Your task to perform on an android device: Search for sushi restaurants on Maps Image 0: 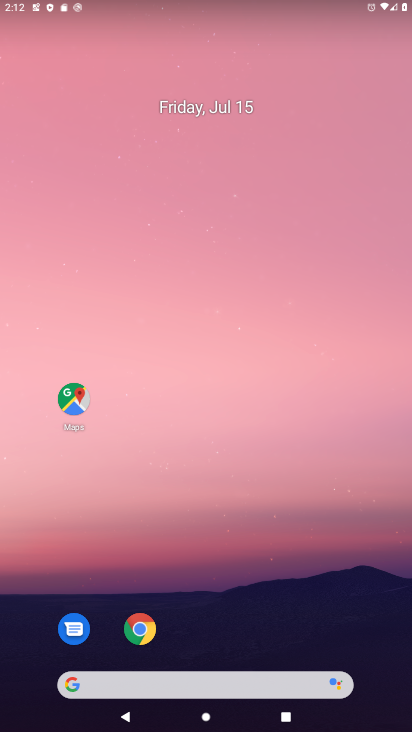
Step 0: drag from (242, 626) to (181, 106)
Your task to perform on an android device: Search for sushi restaurants on Maps Image 1: 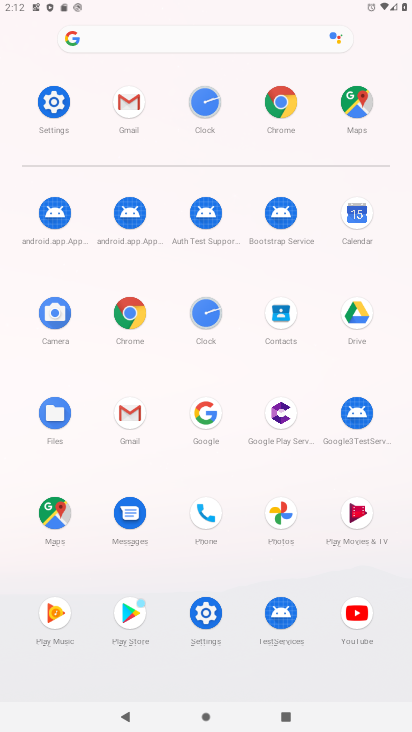
Step 1: click (352, 97)
Your task to perform on an android device: Search for sushi restaurants on Maps Image 2: 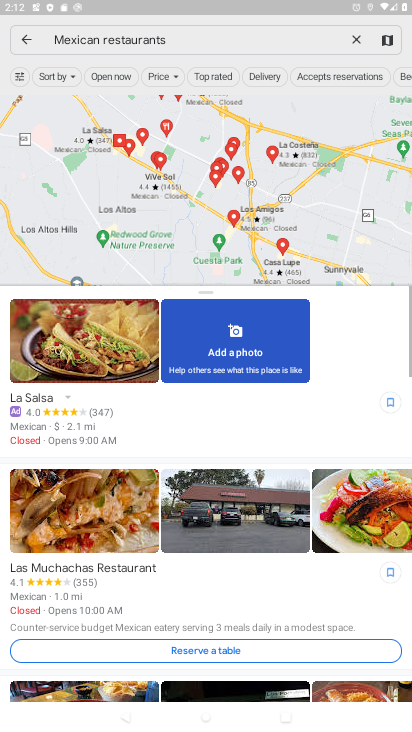
Step 2: click (207, 44)
Your task to perform on an android device: Search for sushi restaurants on Maps Image 3: 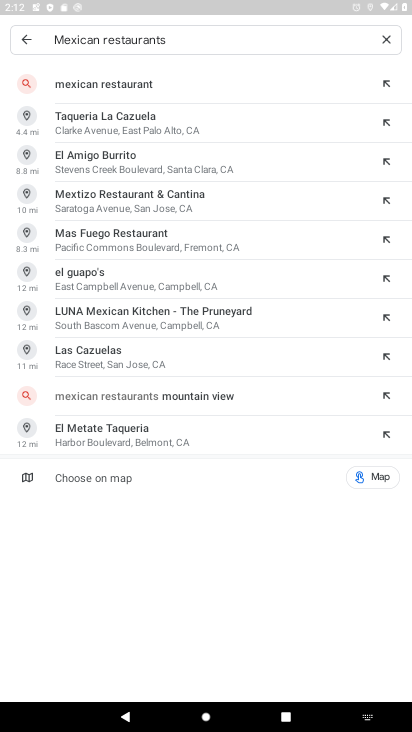
Step 3: click (390, 40)
Your task to perform on an android device: Search for sushi restaurants on Maps Image 4: 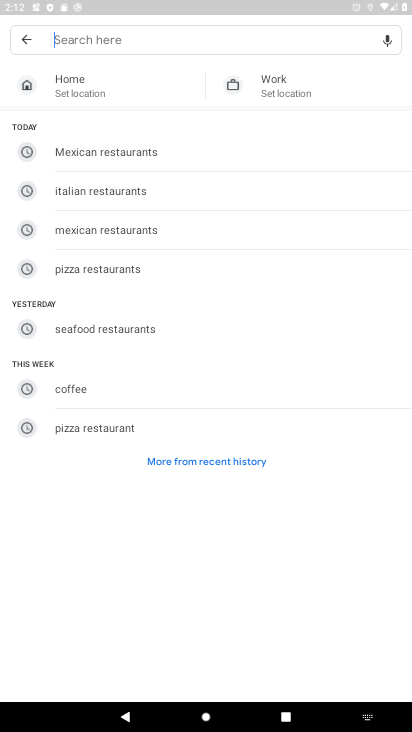
Step 4: type "Sushi restaurants"
Your task to perform on an android device: Search for sushi restaurants on Maps Image 5: 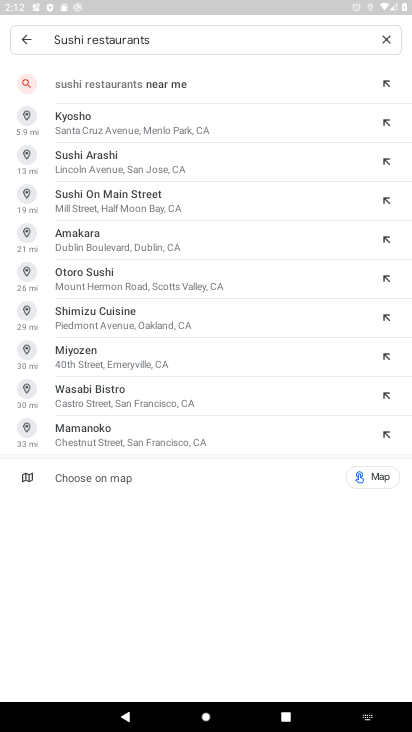
Step 5: press enter
Your task to perform on an android device: Search for sushi restaurants on Maps Image 6: 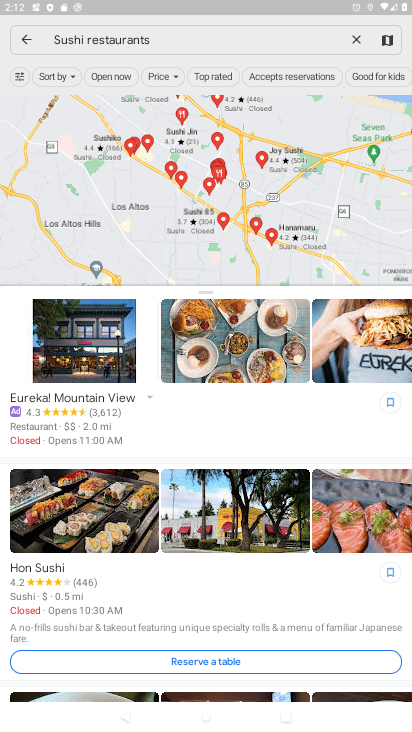
Step 6: task complete